Your task to perform on an android device: Open Reddit.com Image 0: 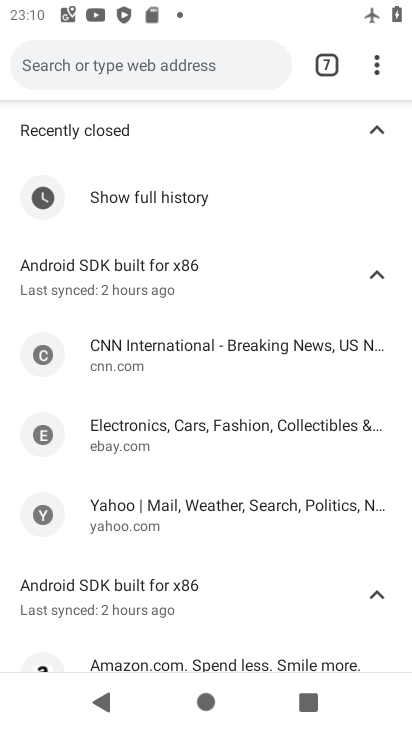
Step 0: press home button
Your task to perform on an android device: Open Reddit.com Image 1: 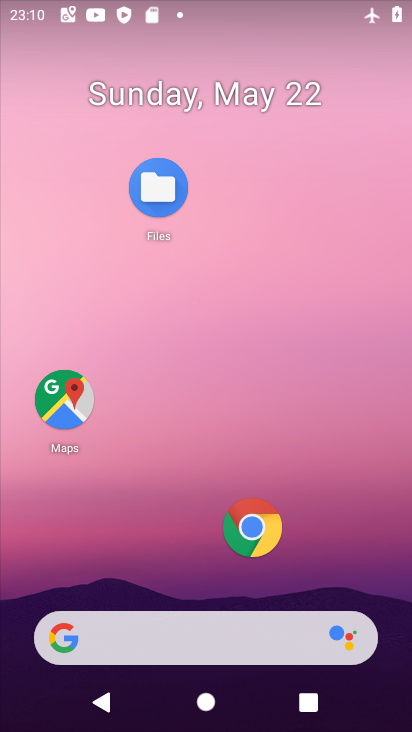
Step 1: click (260, 532)
Your task to perform on an android device: Open Reddit.com Image 2: 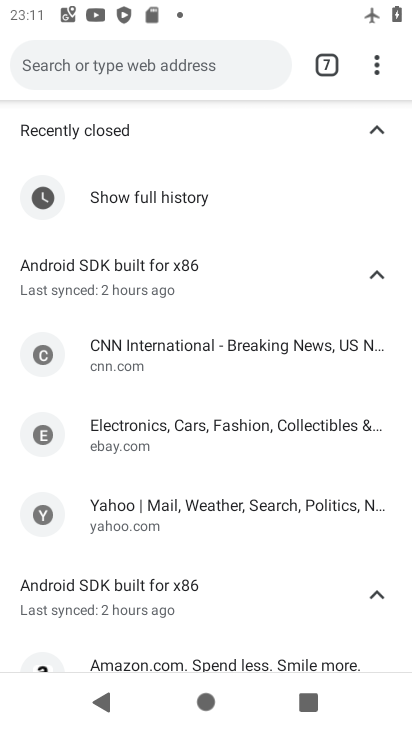
Step 2: click (377, 66)
Your task to perform on an android device: Open Reddit.com Image 3: 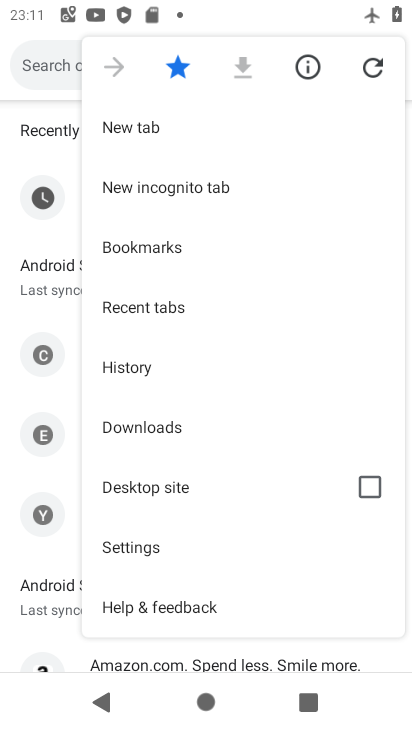
Step 3: click (143, 126)
Your task to perform on an android device: Open Reddit.com Image 4: 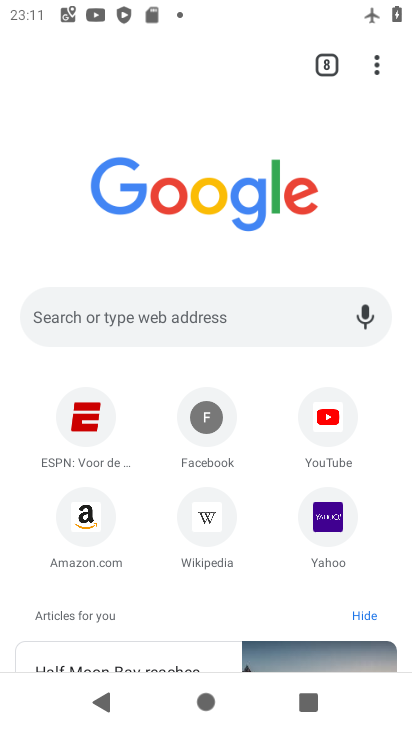
Step 4: click (235, 329)
Your task to perform on an android device: Open Reddit.com Image 5: 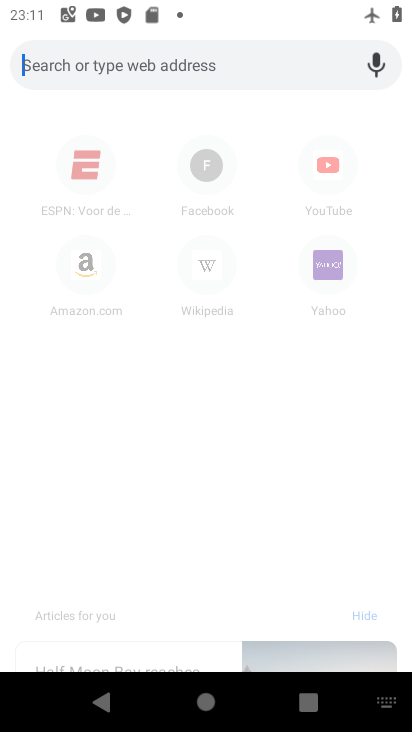
Step 5: type "reddit.com"
Your task to perform on an android device: Open Reddit.com Image 6: 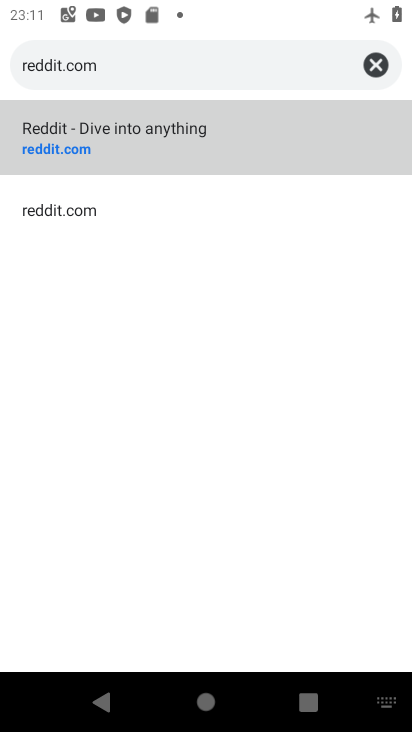
Step 6: click (74, 122)
Your task to perform on an android device: Open Reddit.com Image 7: 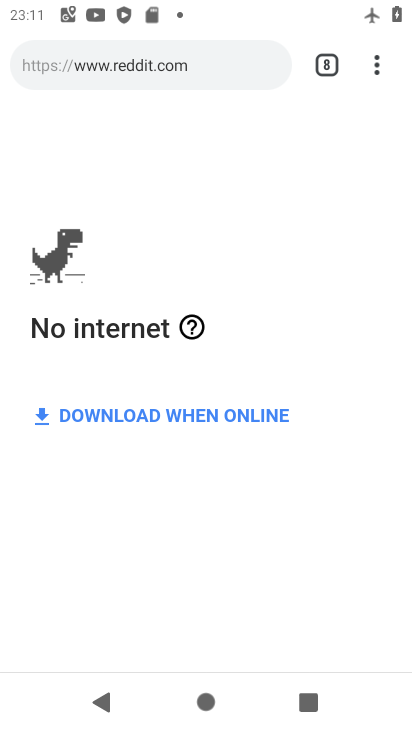
Step 7: task complete